Your task to perform on an android device: Open the map Image 0: 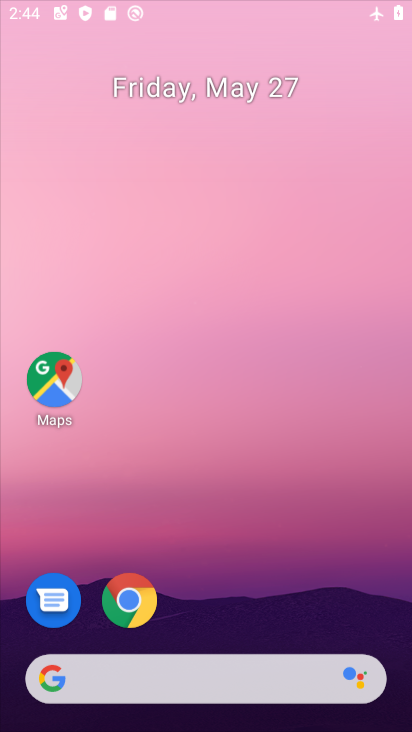
Step 0: drag from (324, 452) to (239, 65)
Your task to perform on an android device: Open the map Image 1: 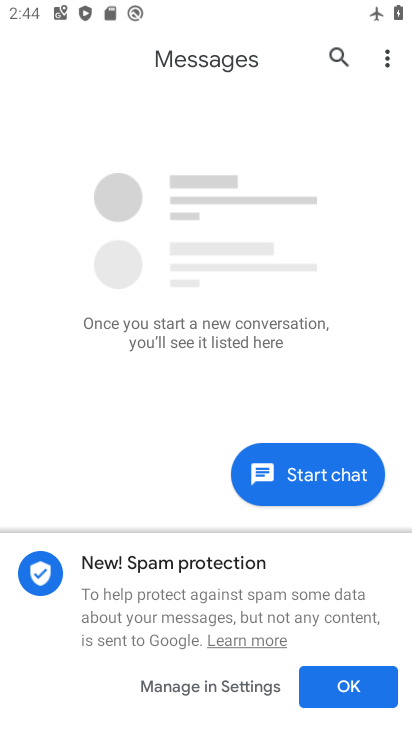
Step 1: press home button
Your task to perform on an android device: Open the map Image 2: 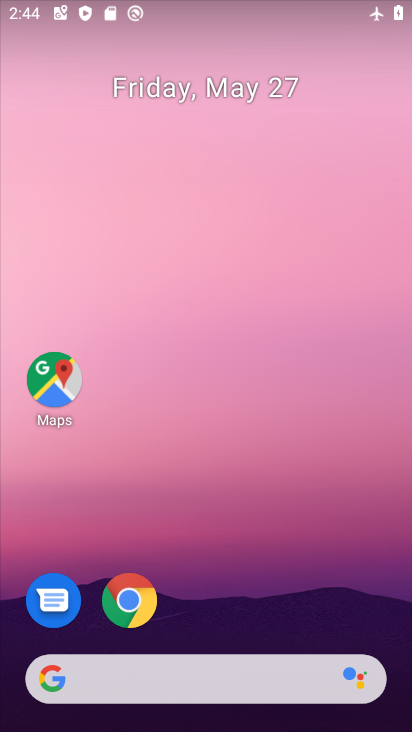
Step 2: click (66, 357)
Your task to perform on an android device: Open the map Image 3: 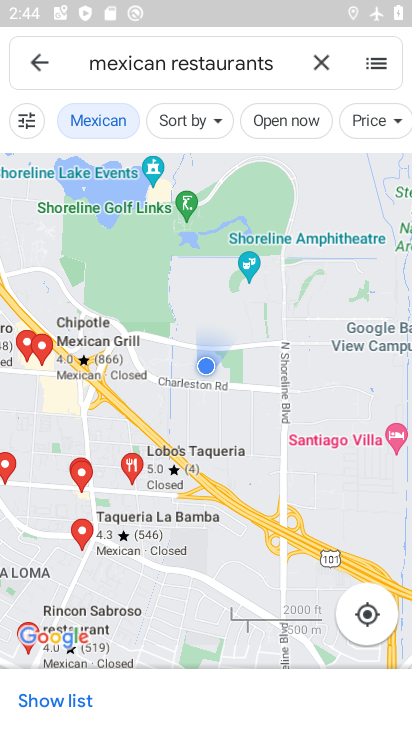
Step 3: task complete